Your task to perform on an android device: turn off notifications settings in the gmail app Image 0: 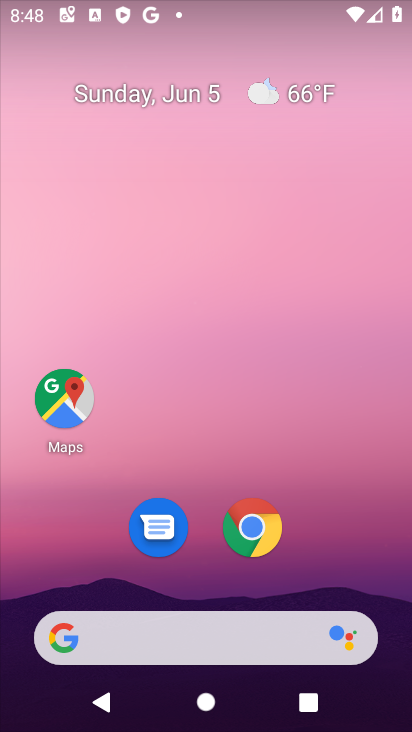
Step 0: drag from (289, 580) to (249, 159)
Your task to perform on an android device: turn off notifications settings in the gmail app Image 1: 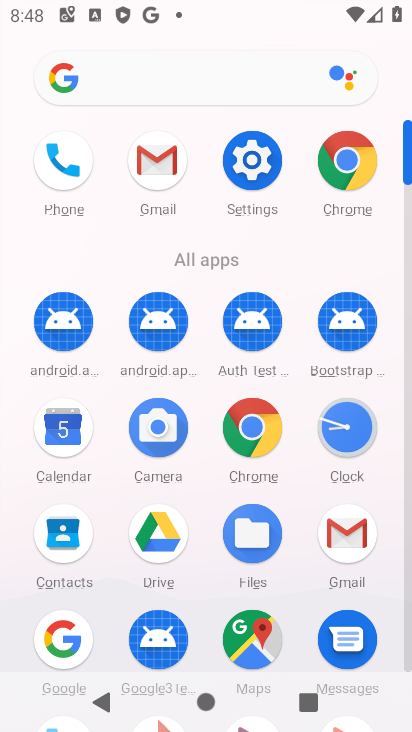
Step 1: click (148, 172)
Your task to perform on an android device: turn off notifications settings in the gmail app Image 2: 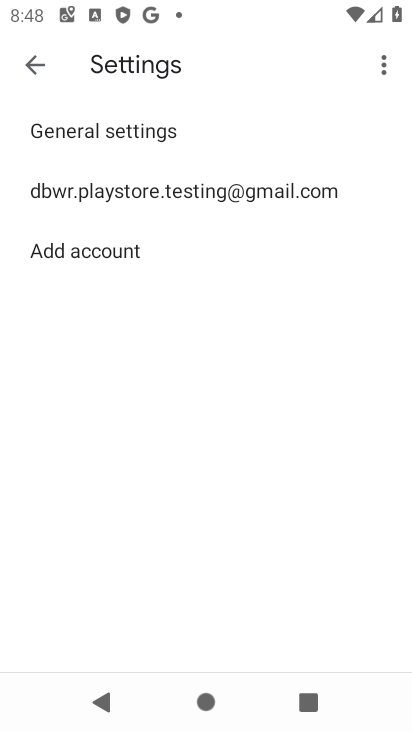
Step 2: click (103, 202)
Your task to perform on an android device: turn off notifications settings in the gmail app Image 3: 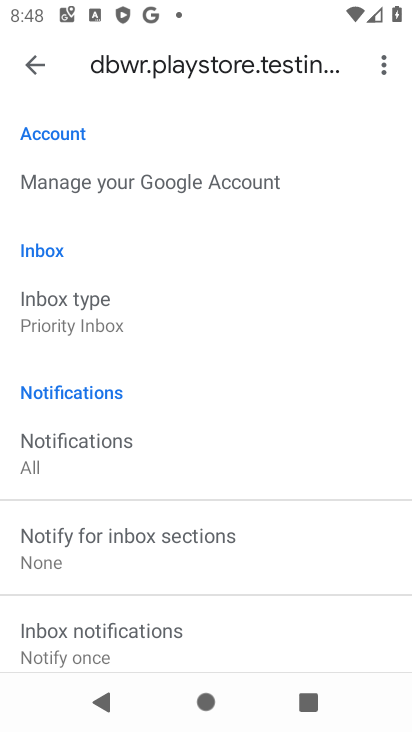
Step 3: click (129, 449)
Your task to perform on an android device: turn off notifications settings in the gmail app Image 4: 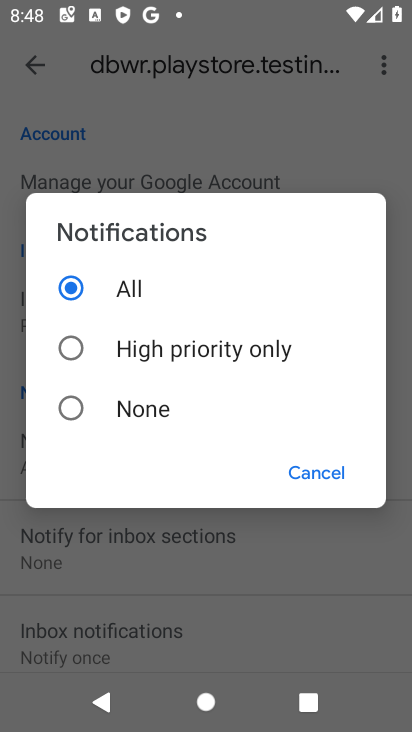
Step 4: click (127, 410)
Your task to perform on an android device: turn off notifications settings in the gmail app Image 5: 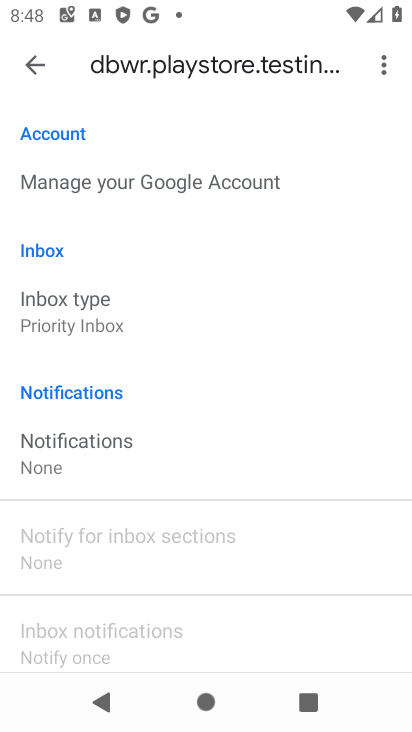
Step 5: task complete